Your task to perform on an android device: delete a single message in the gmail app Image 0: 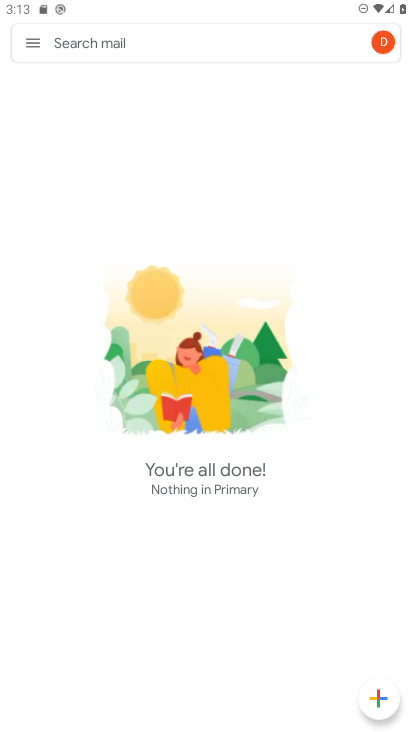
Step 0: press home button
Your task to perform on an android device: delete a single message in the gmail app Image 1: 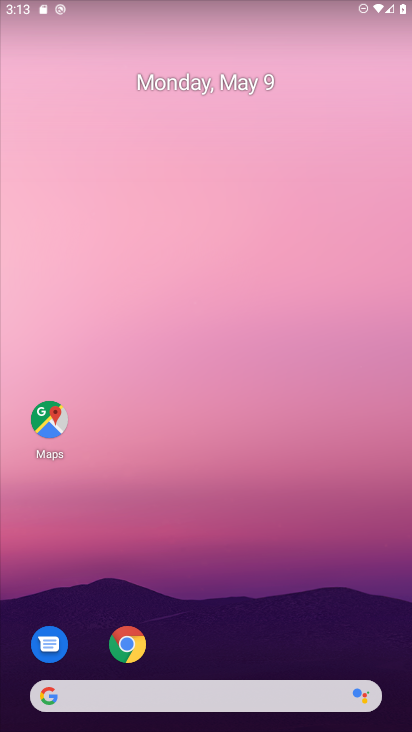
Step 1: drag from (271, 222) to (271, 187)
Your task to perform on an android device: delete a single message in the gmail app Image 2: 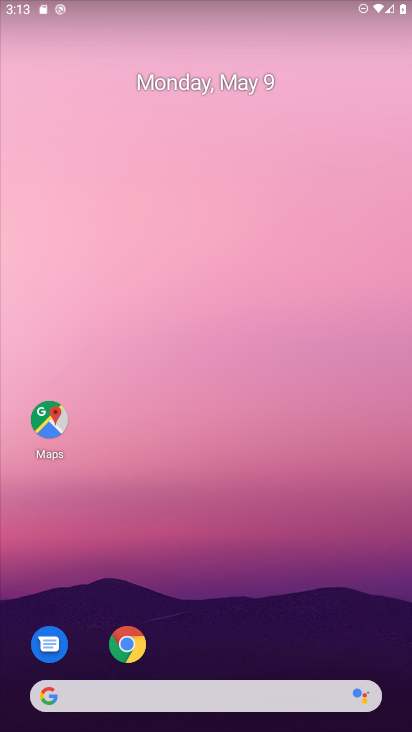
Step 2: drag from (215, 616) to (315, 126)
Your task to perform on an android device: delete a single message in the gmail app Image 3: 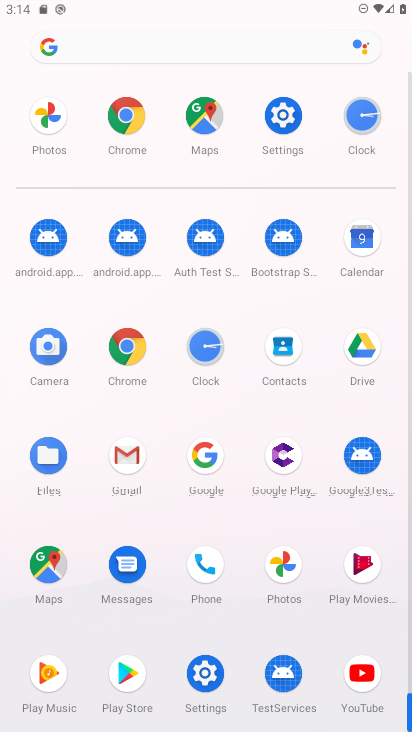
Step 3: click (124, 473)
Your task to perform on an android device: delete a single message in the gmail app Image 4: 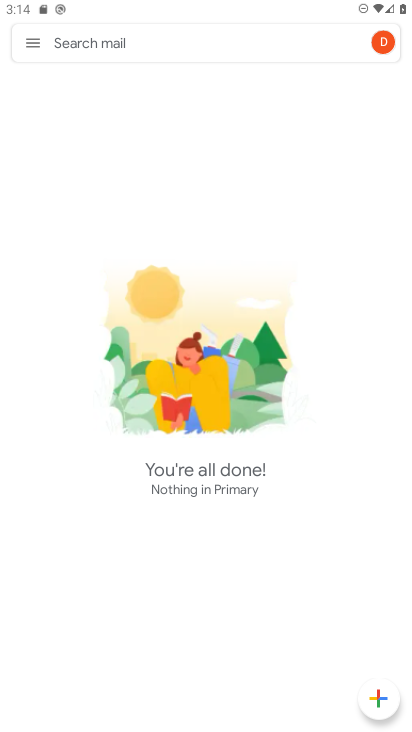
Step 4: click (27, 47)
Your task to perform on an android device: delete a single message in the gmail app Image 5: 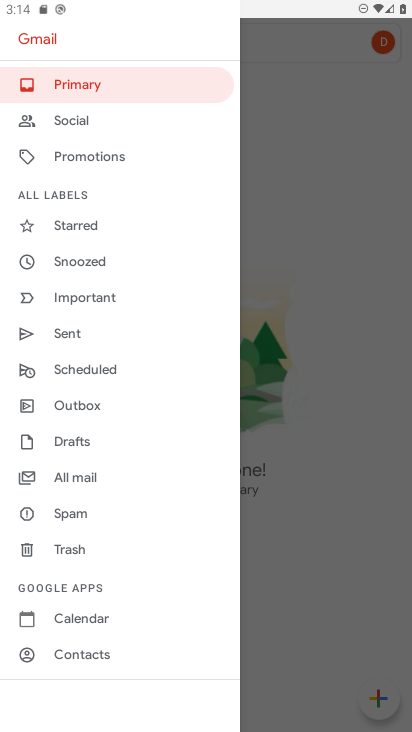
Step 5: click (70, 482)
Your task to perform on an android device: delete a single message in the gmail app Image 6: 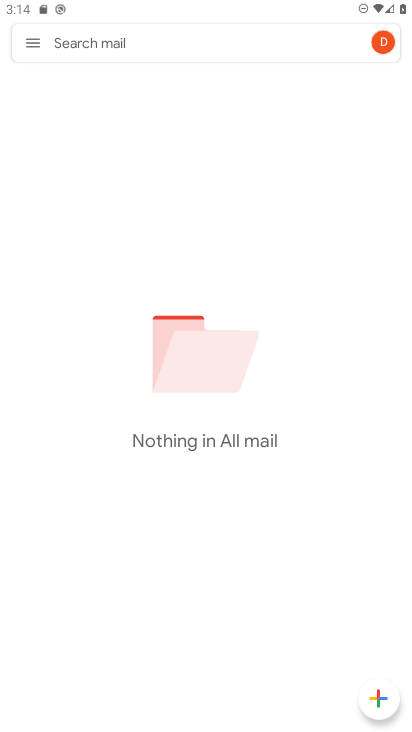
Step 6: task complete